Your task to perform on an android device: When is my next appointment? Image 0: 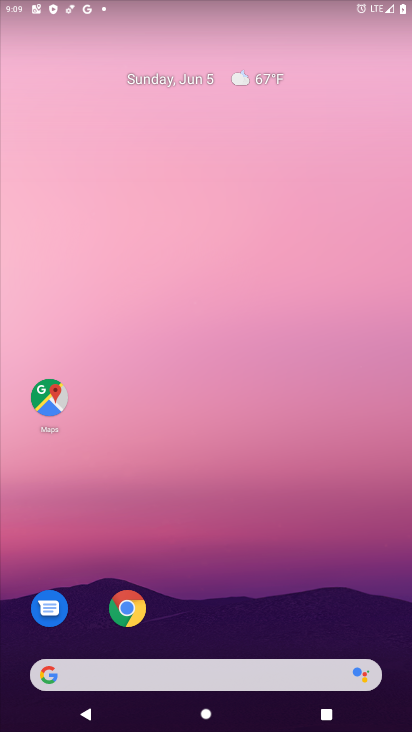
Step 0: drag from (3, 714) to (102, 393)
Your task to perform on an android device: When is my next appointment? Image 1: 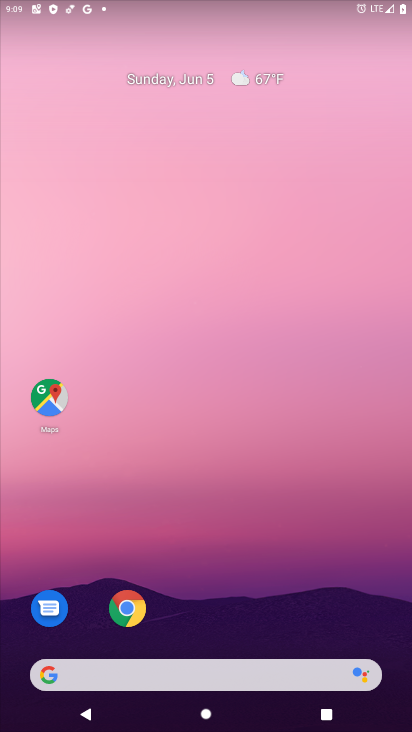
Step 1: drag from (115, 456) to (239, 248)
Your task to perform on an android device: When is my next appointment? Image 2: 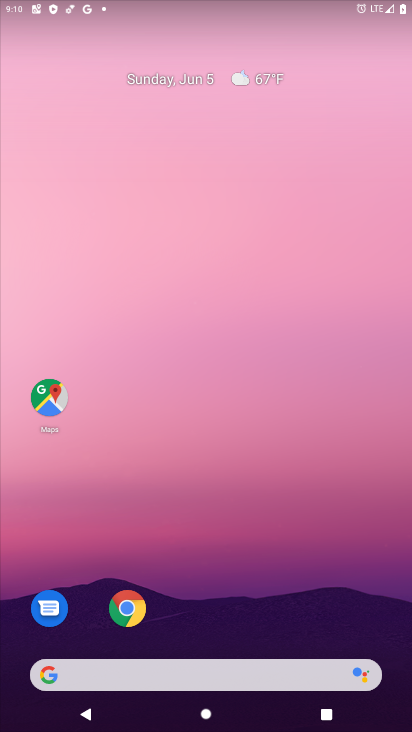
Step 2: drag from (63, 576) to (395, 185)
Your task to perform on an android device: When is my next appointment? Image 3: 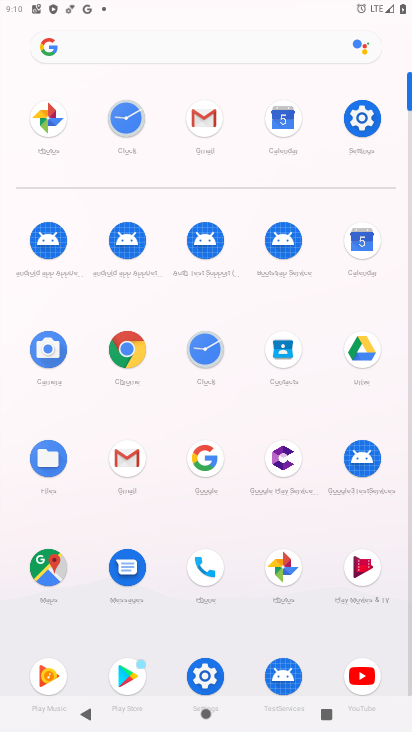
Step 3: click (366, 246)
Your task to perform on an android device: When is my next appointment? Image 4: 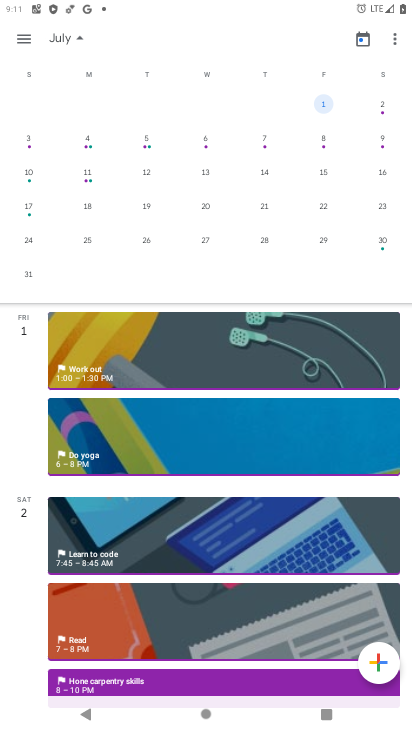
Step 4: task complete